Your task to perform on an android device: manage bookmarks in the chrome app Image 0: 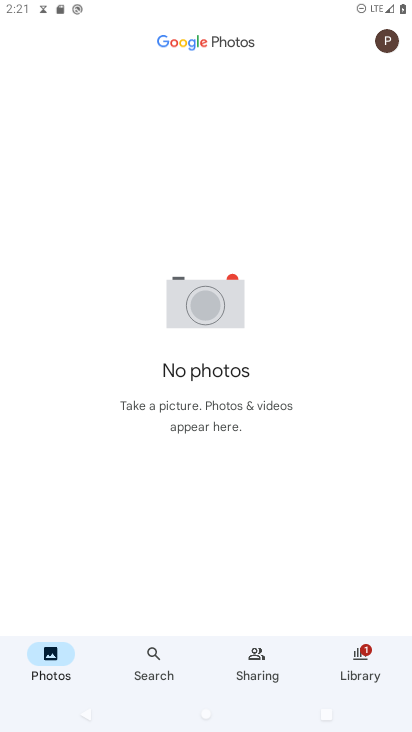
Step 0: press home button
Your task to perform on an android device: manage bookmarks in the chrome app Image 1: 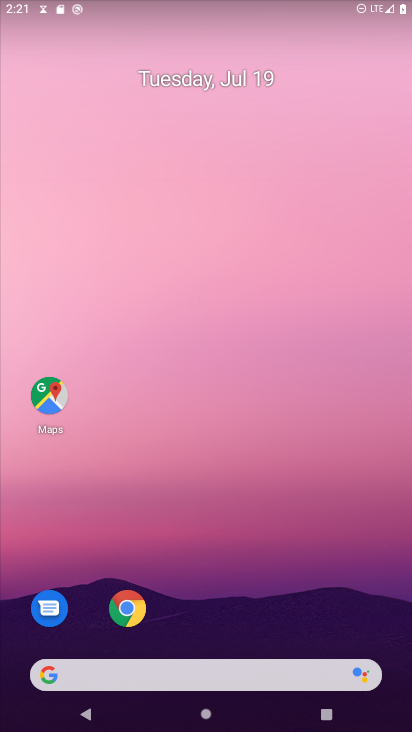
Step 1: drag from (274, 666) to (351, 4)
Your task to perform on an android device: manage bookmarks in the chrome app Image 2: 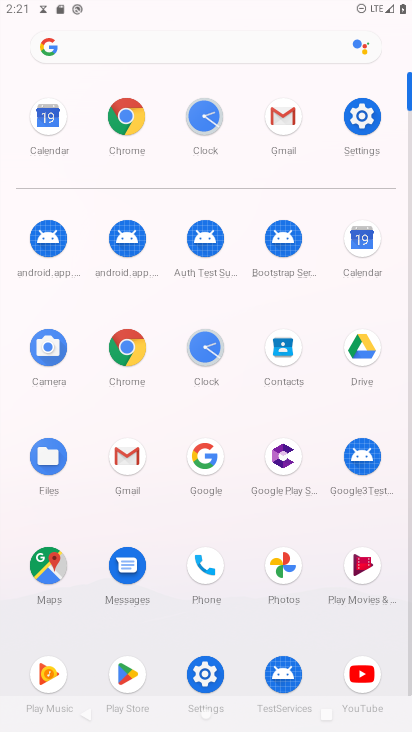
Step 2: click (117, 351)
Your task to perform on an android device: manage bookmarks in the chrome app Image 3: 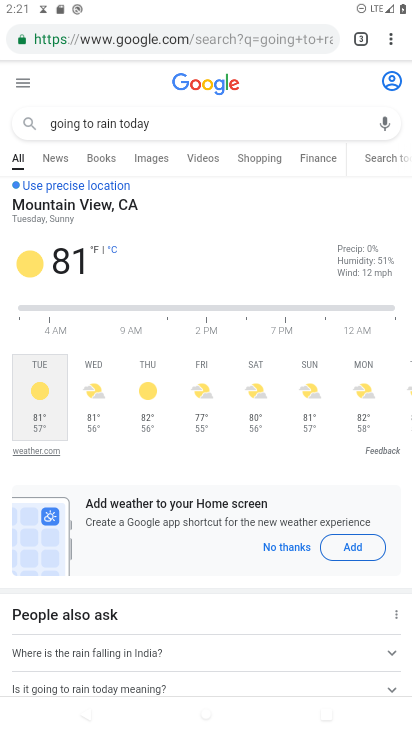
Step 3: task complete